Your task to perform on an android device: set default search engine in the chrome app Image 0: 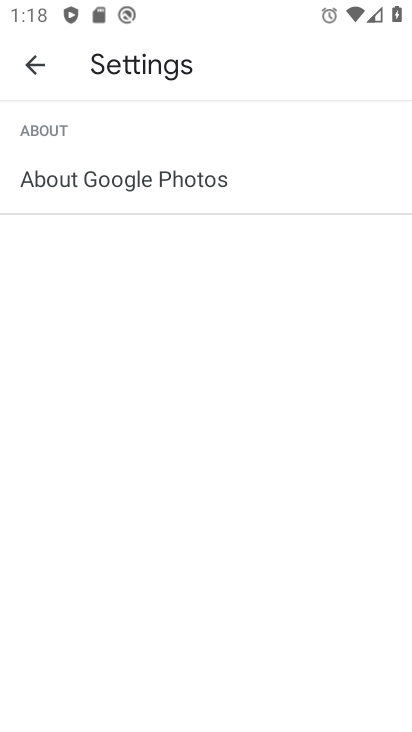
Step 0: press home button
Your task to perform on an android device: set default search engine in the chrome app Image 1: 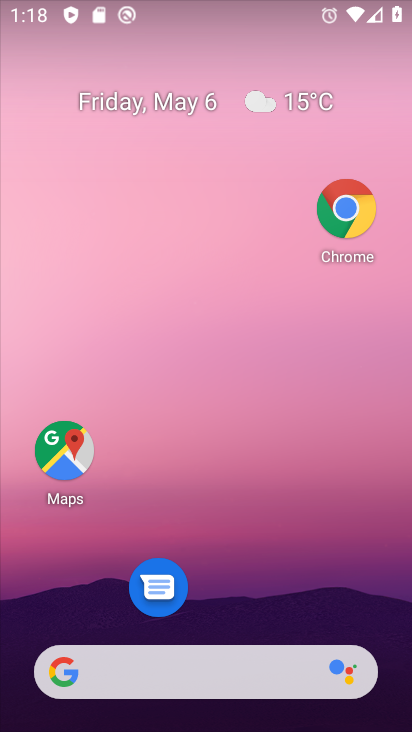
Step 1: click (339, 235)
Your task to perform on an android device: set default search engine in the chrome app Image 2: 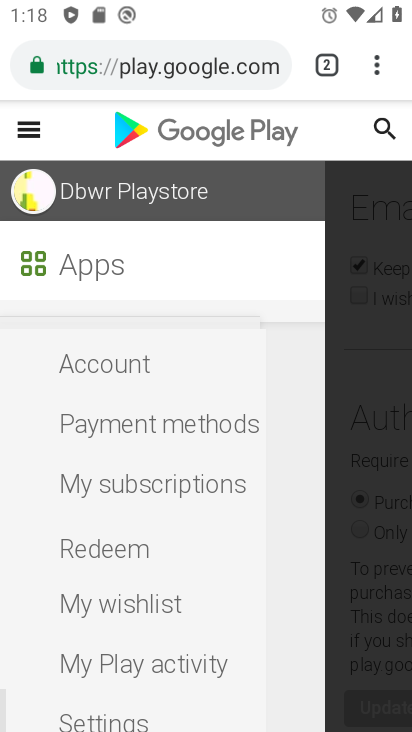
Step 2: click (372, 65)
Your task to perform on an android device: set default search engine in the chrome app Image 3: 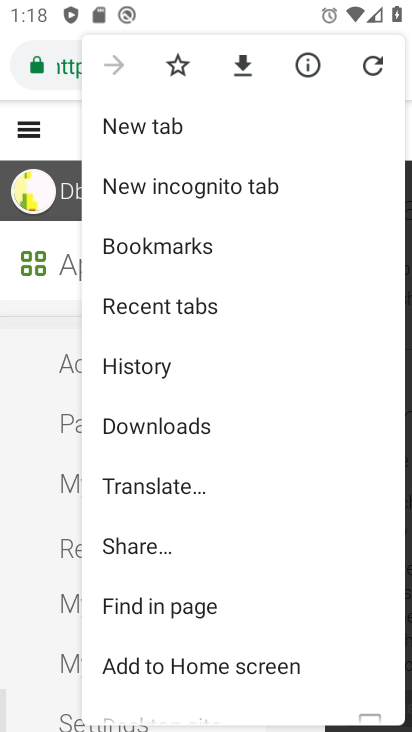
Step 3: drag from (188, 647) to (202, 230)
Your task to perform on an android device: set default search engine in the chrome app Image 4: 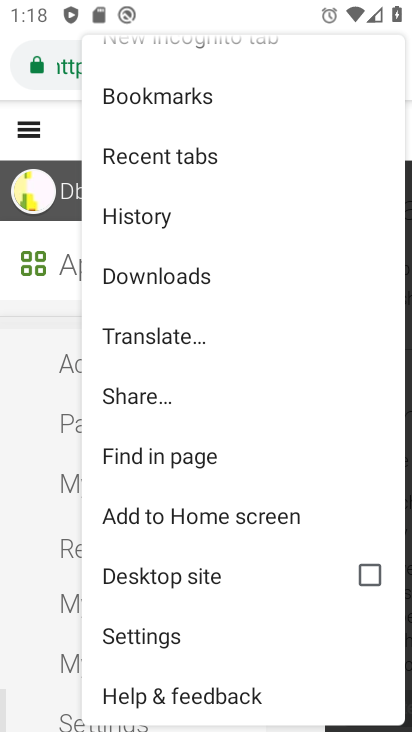
Step 4: click (167, 641)
Your task to perform on an android device: set default search engine in the chrome app Image 5: 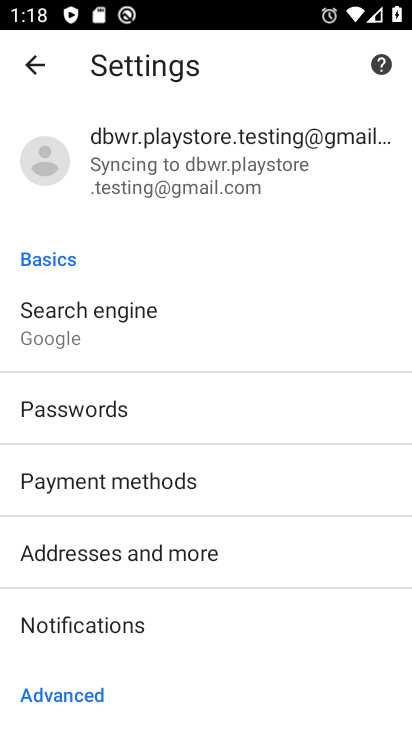
Step 5: click (100, 333)
Your task to perform on an android device: set default search engine in the chrome app Image 6: 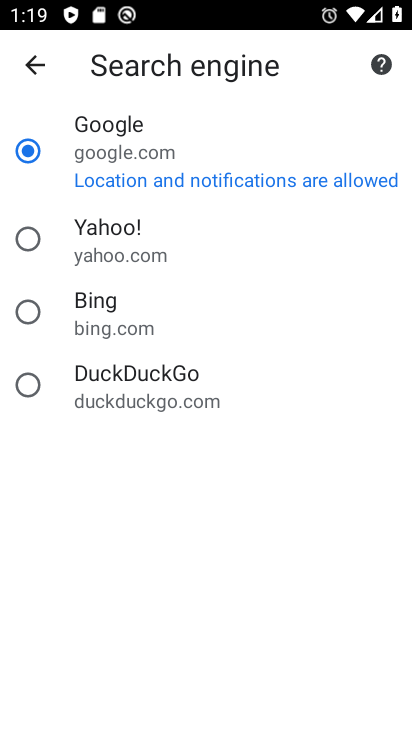
Step 6: click (48, 246)
Your task to perform on an android device: set default search engine in the chrome app Image 7: 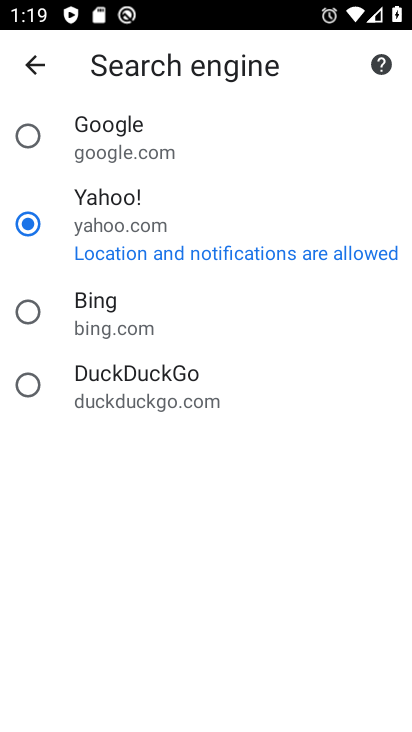
Step 7: task complete